Your task to perform on an android device: Google the capital of Canada Image 0: 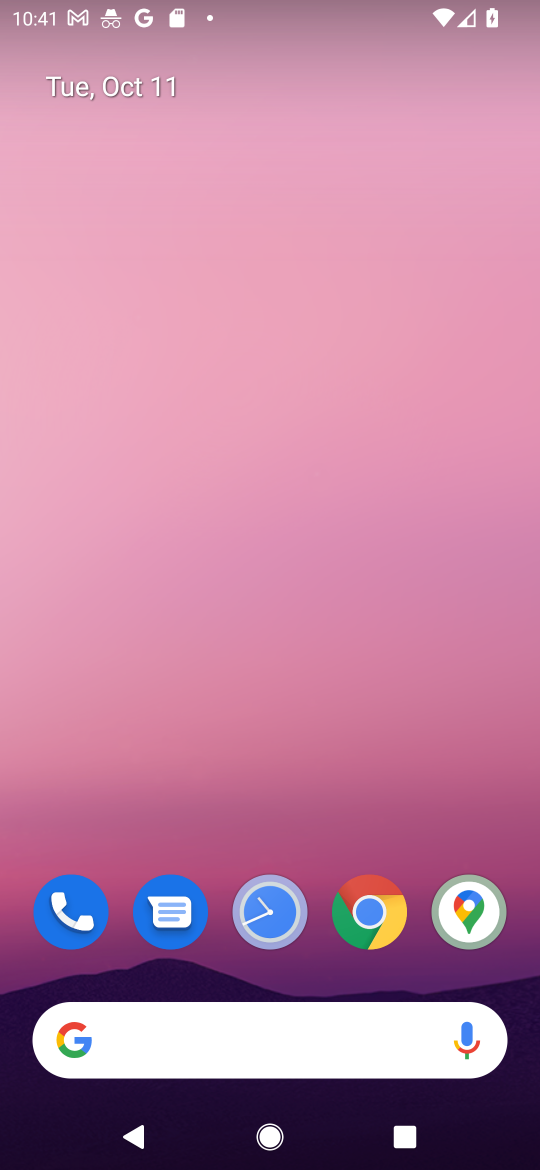
Step 0: click (373, 927)
Your task to perform on an android device: Google the capital of Canada Image 1: 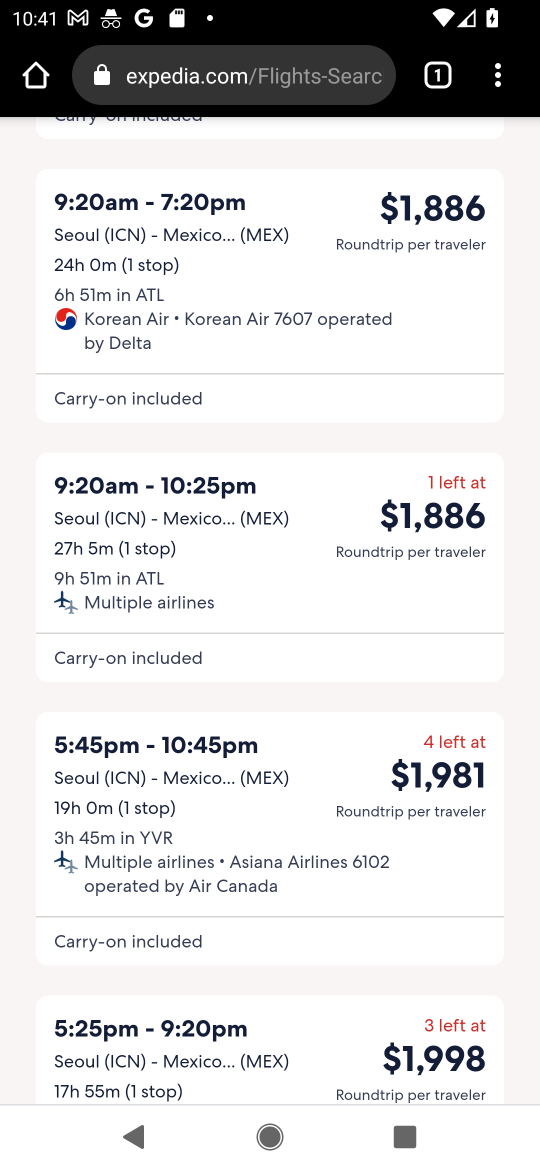
Step 1: click (228, 48)
Your task to perform on an android device: Google the capital of Canada Image 2: 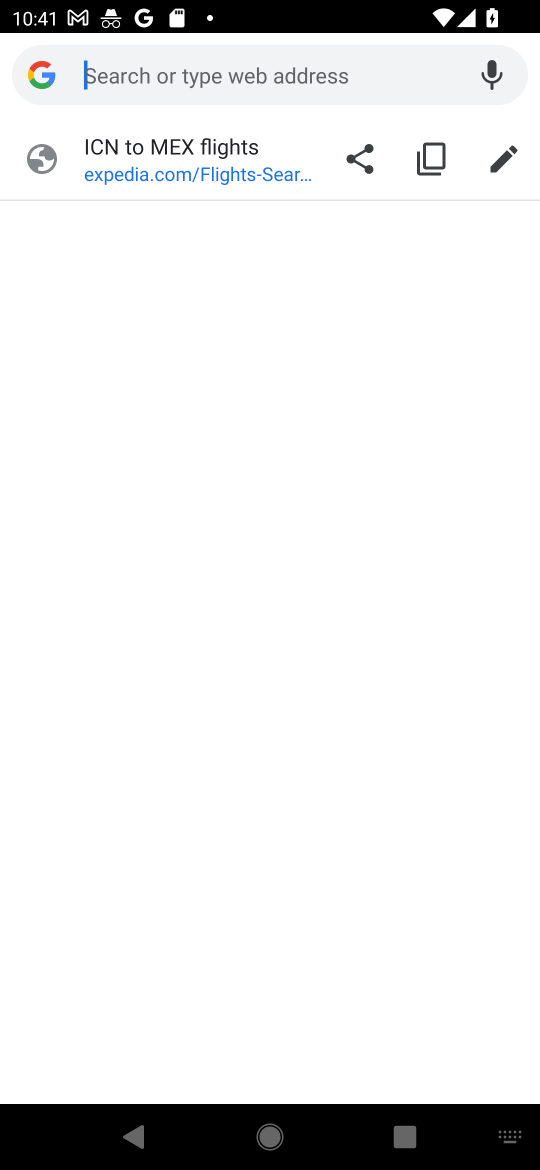
Step 2: type "capital of Canada"
Your task to perform on an android device: Google the capital of Canada Image 3: 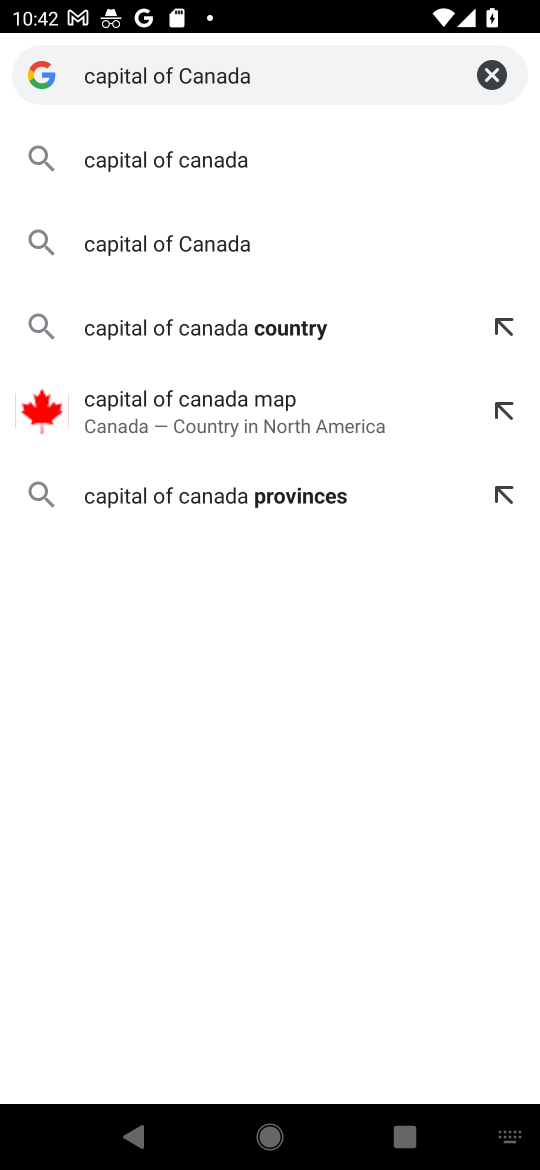
Step 3: click (126, 164)
Your task to perform on an android device: Google the capital of Canada Image 4: 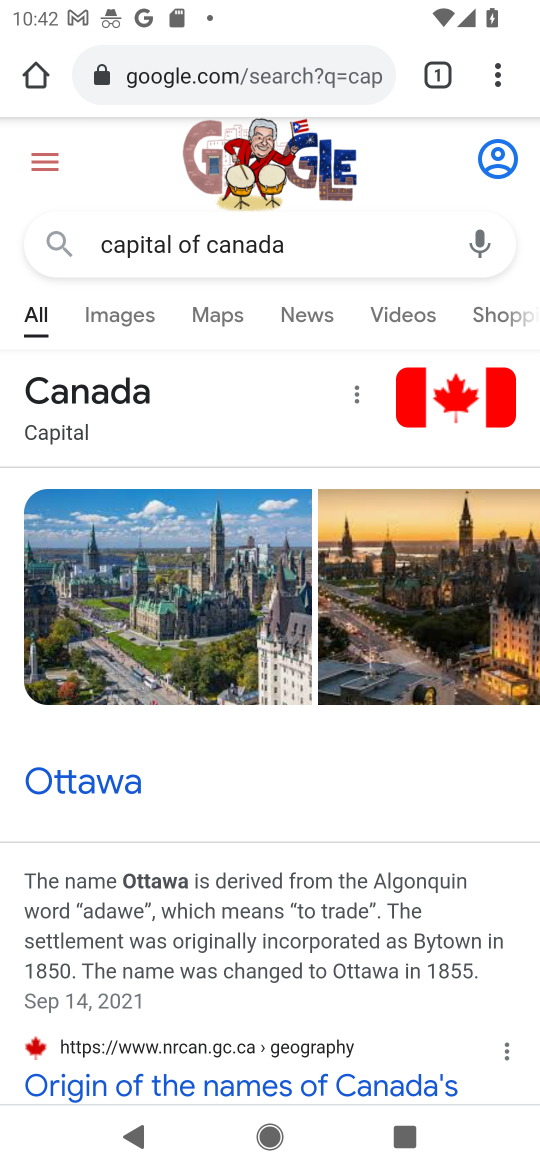
Step 4: task complete